Your task to perform on an android device: Check the weather Image 0: 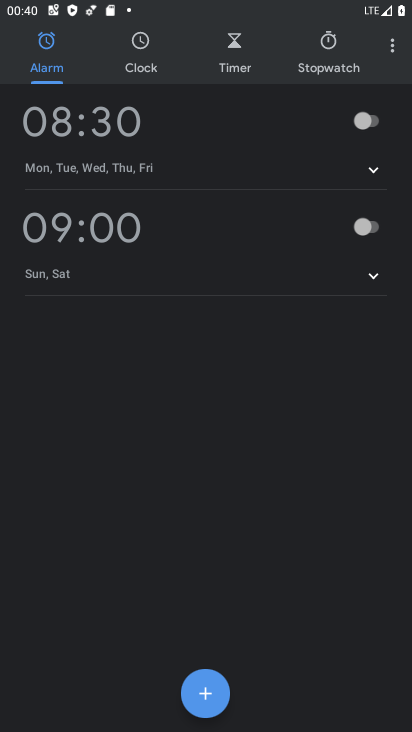
Step 0: press home button
Your task to perform on an android device: Check the weather Image 1: 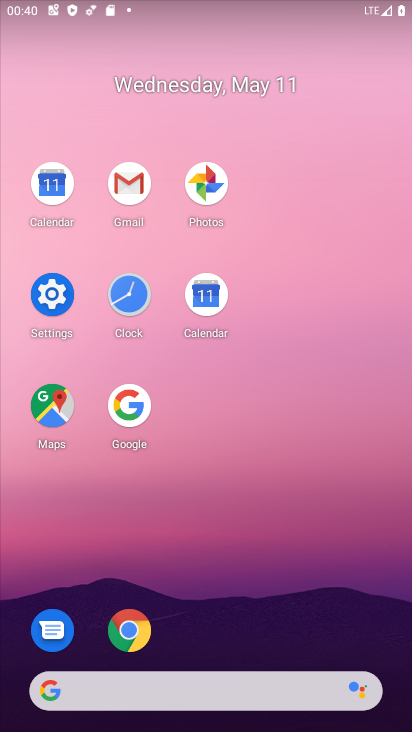
Step 1: click (144, 399)
Your task to perform on an android device: Check the weather Image 2: 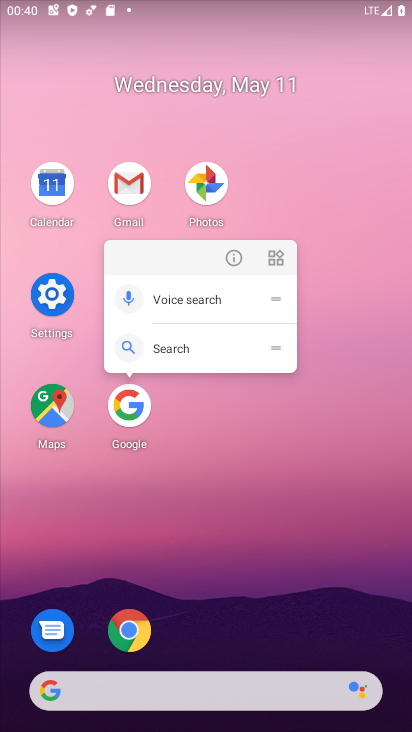
Step 2: click (135, 420)
Your task to perform on an android device: Check the weather Image 3: 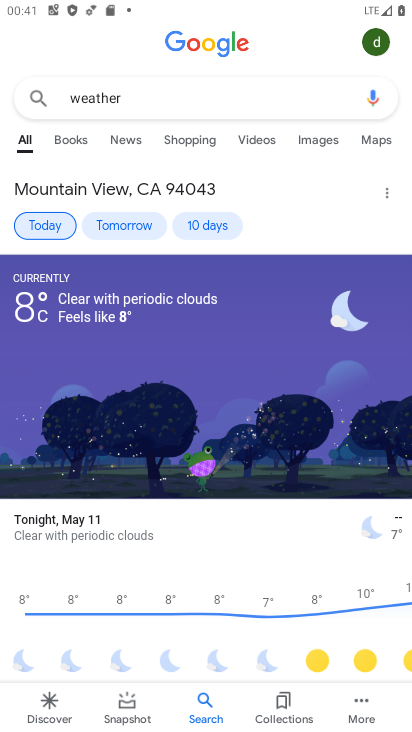
Step 3: task complete